Your task to perform on an android device: turn off notifications settings in the gmail app Image 0: 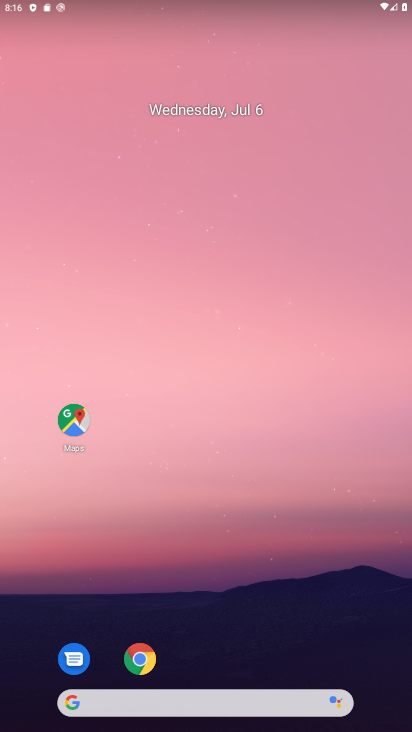
Step 0: drag from (250, 659) to (285, 179)
Your task to perform on an android device: turn off notifications settings in the gmail app Image 1: 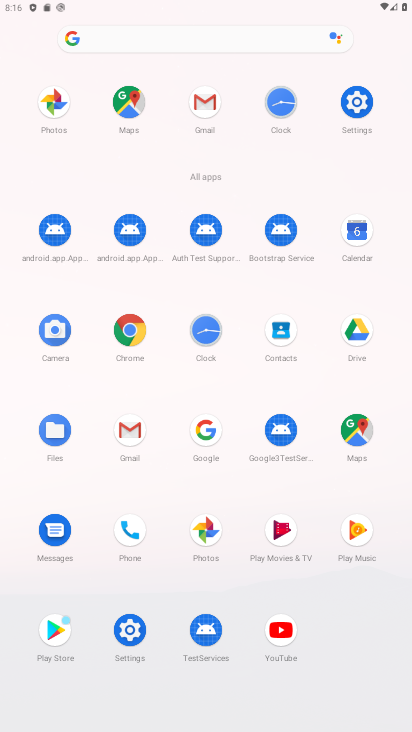
Step 1: click (203, 106)
Your task to perform on an android device: turn off notifications settings in the gmail app Image 2: 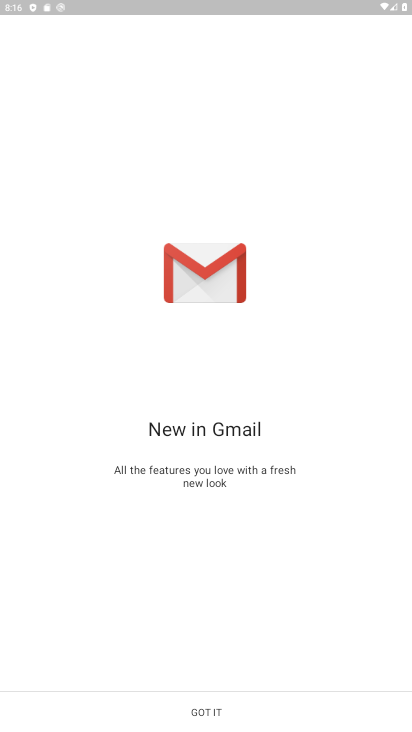
Step 2: click (195, 726)
Your task to perform on an android device: turn off notifications settings in the gmail app Image 3: 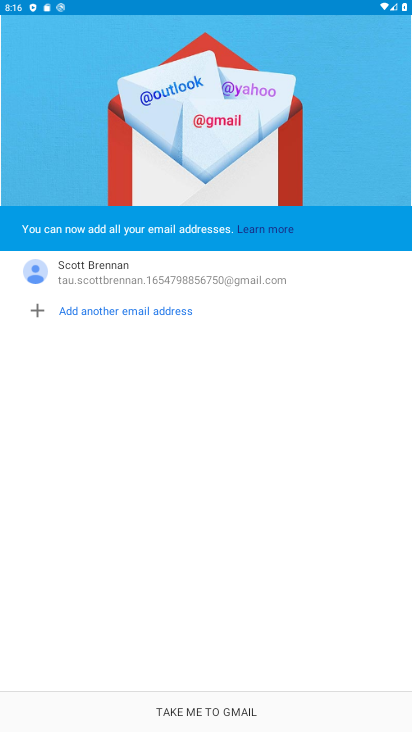
Step 3: click (223, 721)
Your task to perform on an android device: turn off notifications settings in the gmail app Image 4: 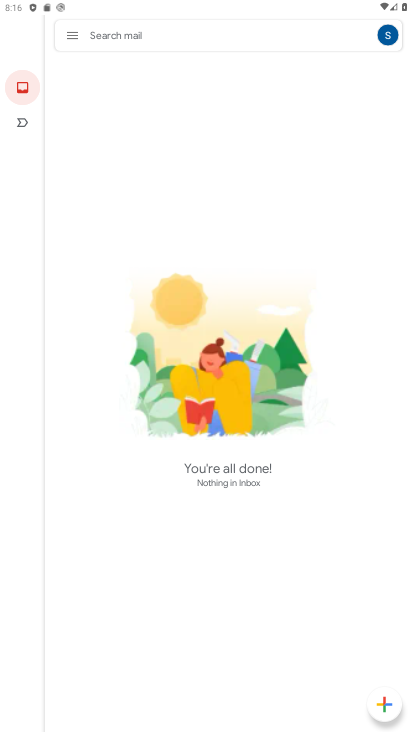
Step 4: click (72, 37)
Your task to perform on an android device: turn off notifications settings in the gmail app Image 5: 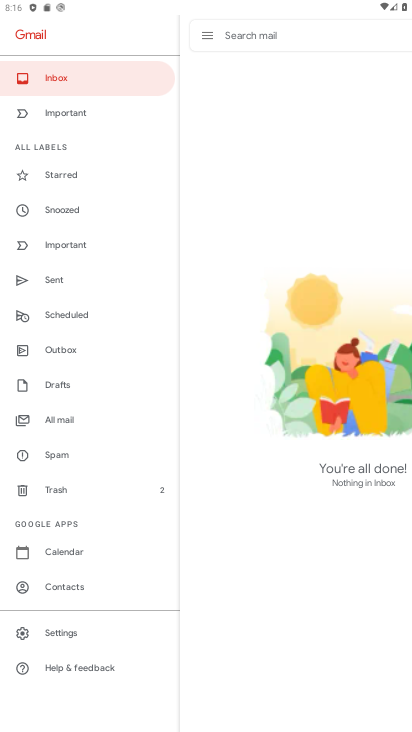
Step 5: click (62, 640)
Your task to perform on an android device: turn off notifications settings in the gmail app Image 6: 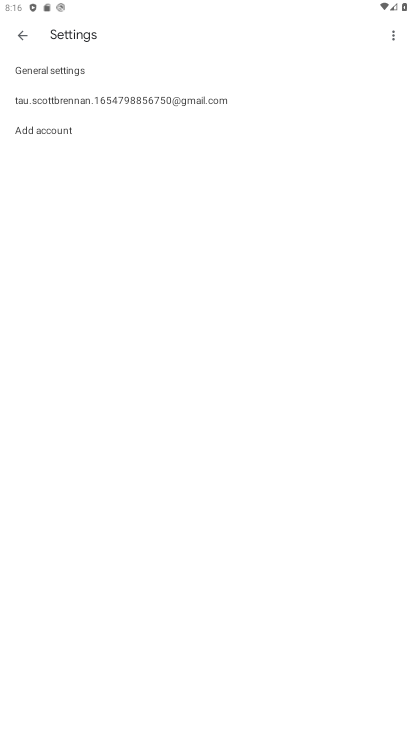
Step 6: click (91, 94)
Your task to perform on an android device: turn off notifications settings in the gmail app Image 7: 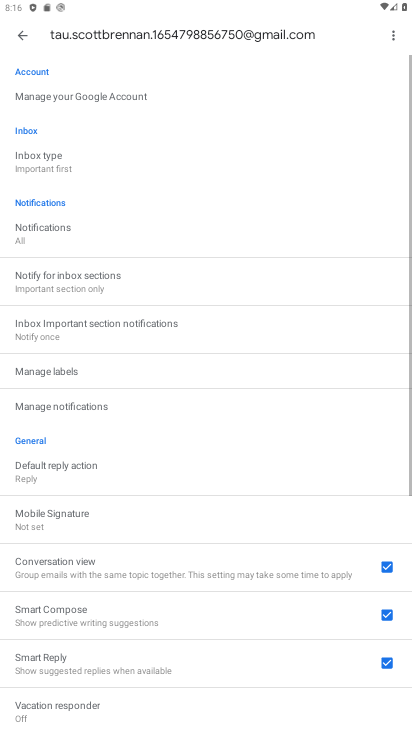
Step 7: drag from (121, 615) to (158, 530)
Your task to perform on an android device: turn off notifications settings in the gmail app Image 8: 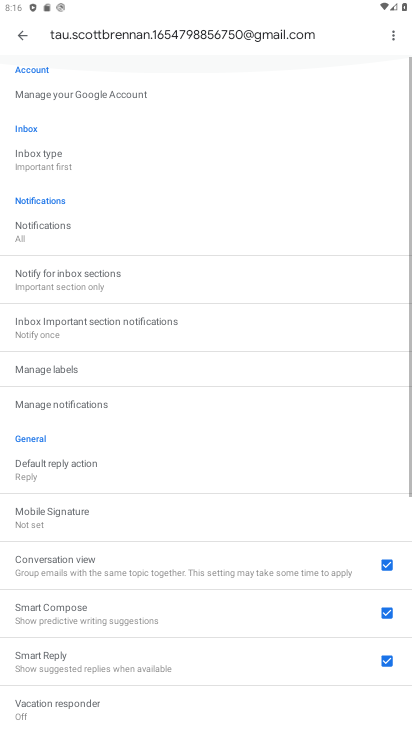
Step 8: click (8, 248)
Your task to perform on an android device: turn off notifications settings in the gmail app Image 9: 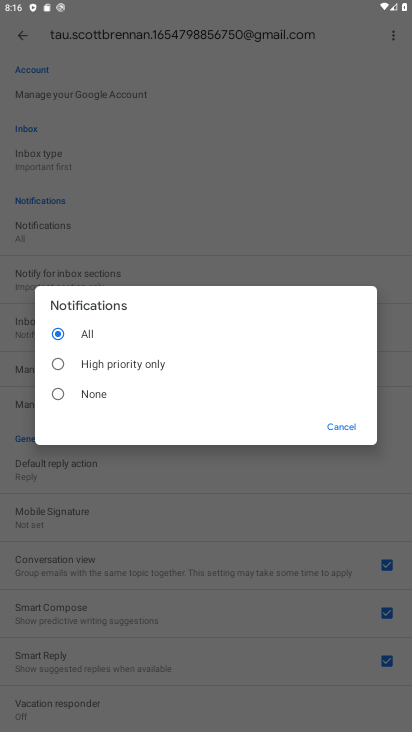
Step 9: click (46, 394)
Your task to perform on an android device: turn off notifications settings in the gmail app Image 10: 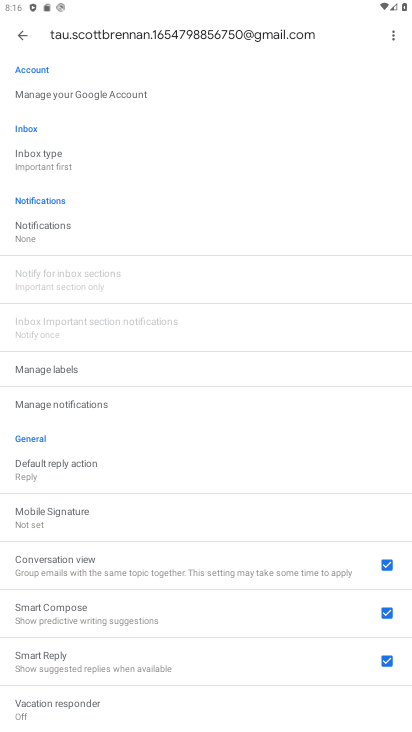
Step 10: task complete